Your task to perform on an android device: Go to display settings Image 0: 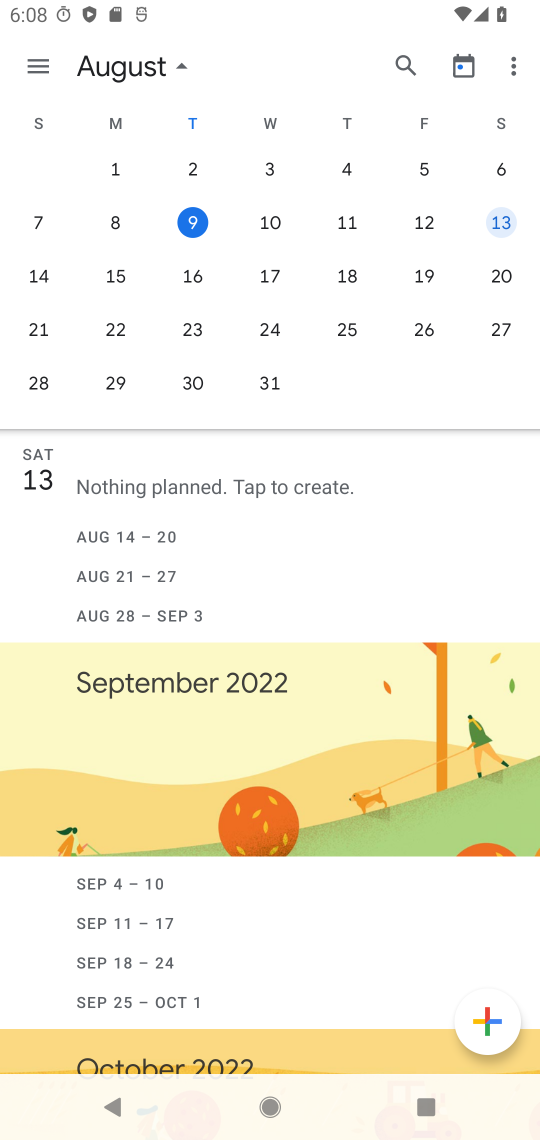
Step 0: press home button
Your task to perform on an android device: Go to display settings Image 1: 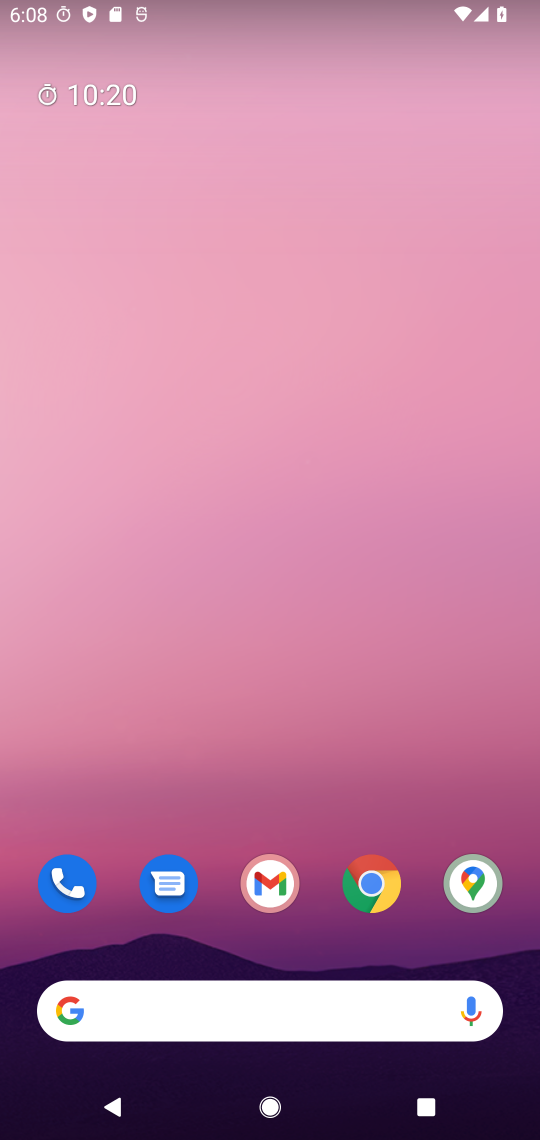
Step 1: drag from (281, 714) to (281, 187)
Your task to perform on an android device: Go to display settings Image 2: 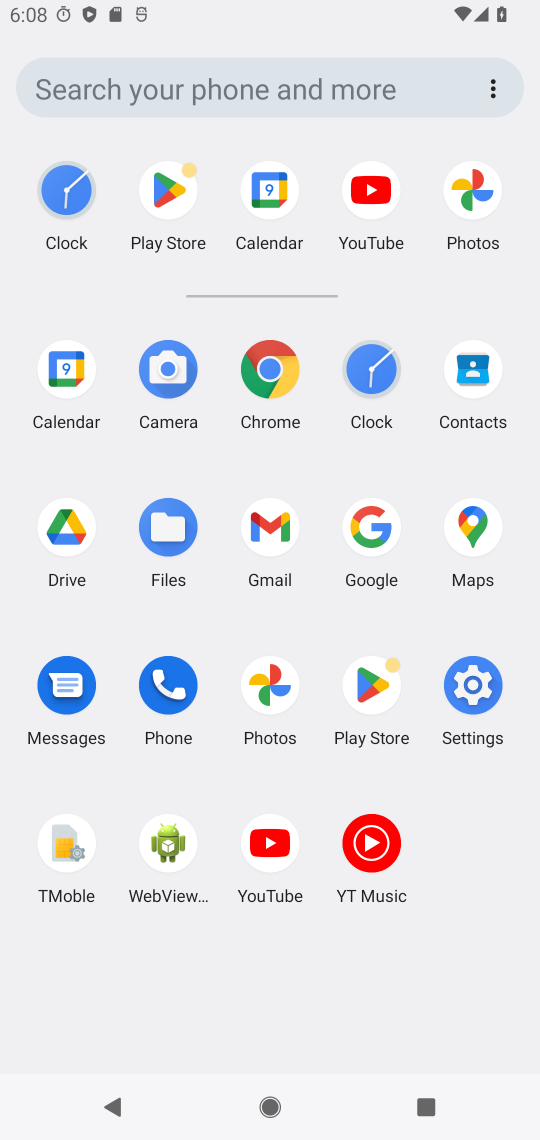
Step 2: click (442, 683)
Your task to perform on an android device: Go to display settings Image 3: 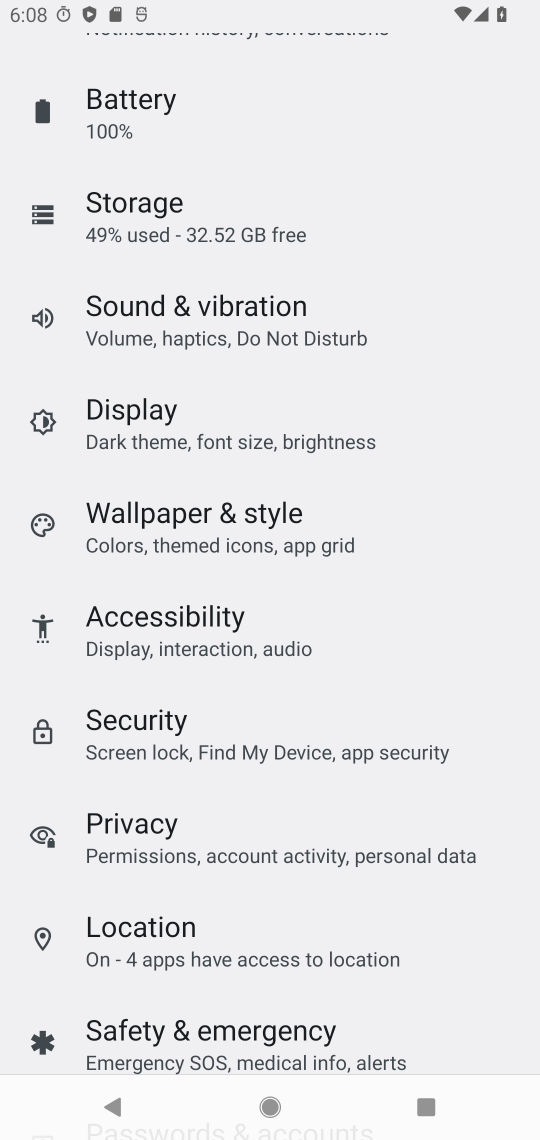
Step 3: click (139, 433)
Your task to perform on an android device: Go to display settings Image 4: 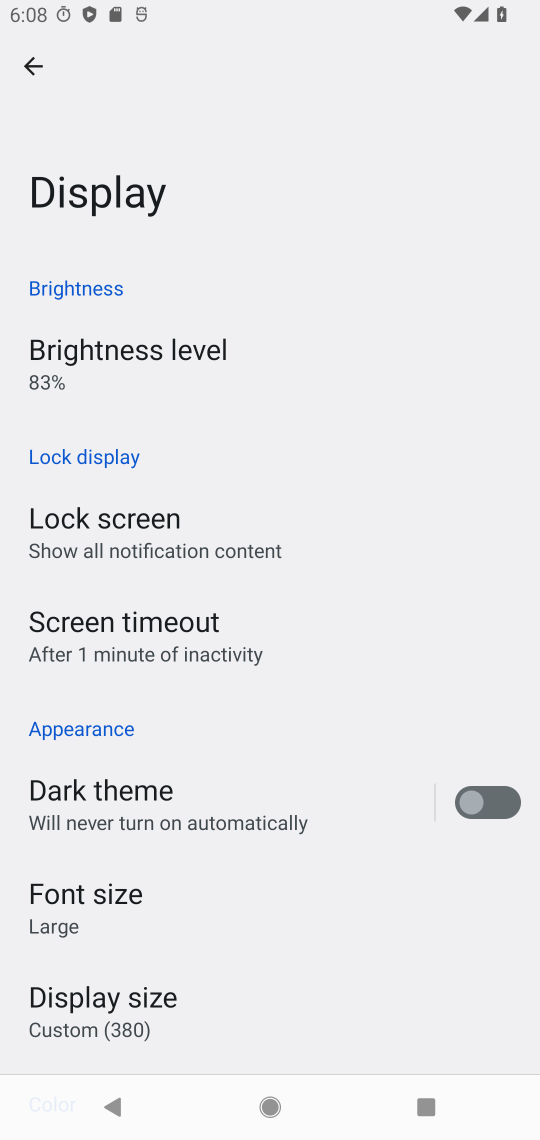
Step 4: task complete